Your task to perform on an android device: Go to Yahoo.com Image 0: 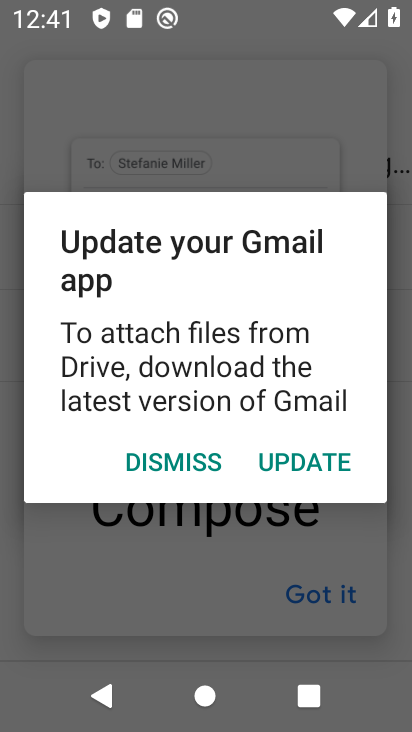
Step 0: press home button
Your task to perform on an android device: Go to Yahoo.com Image 1: 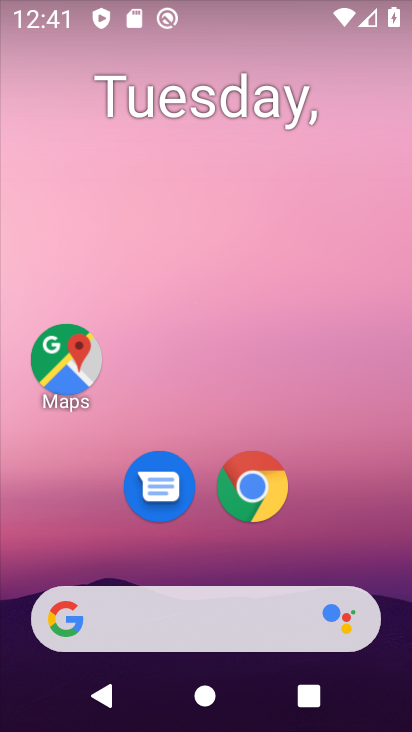
Step 1: drag from (371, 551) to (332, 172)
Your task to perform on an android device: Go to Yahoo.com Image 2: 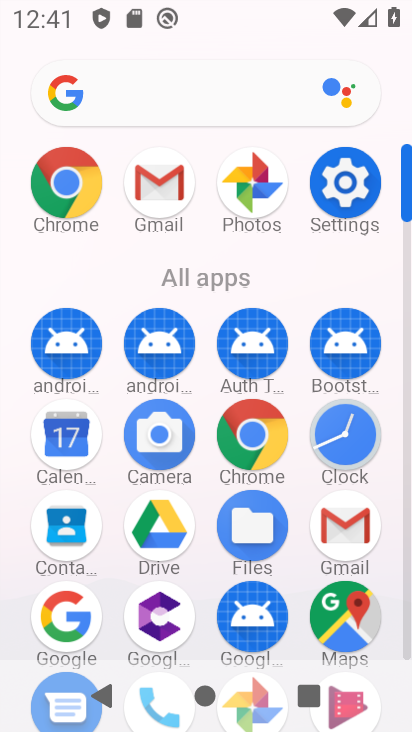
Step 2: click (71, 194)
Your task to perform on an android device: Go to Yahoo.com Image 3: 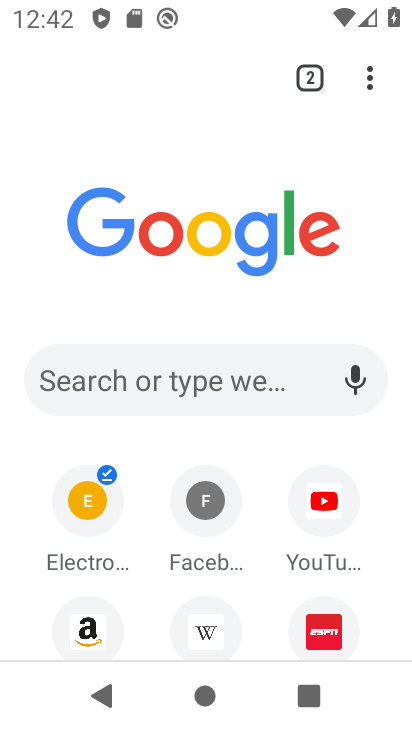
Step 3: click (188, 368)
Your task to perform on an android device: Go to Yahoo.com Image 4: 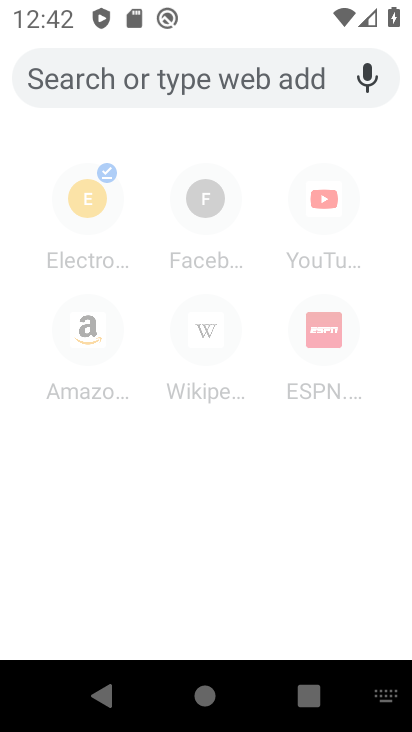
Step 4: type "yahoo.com"
Your task to perform on an android device: Go to Yahoo.com Image 5: 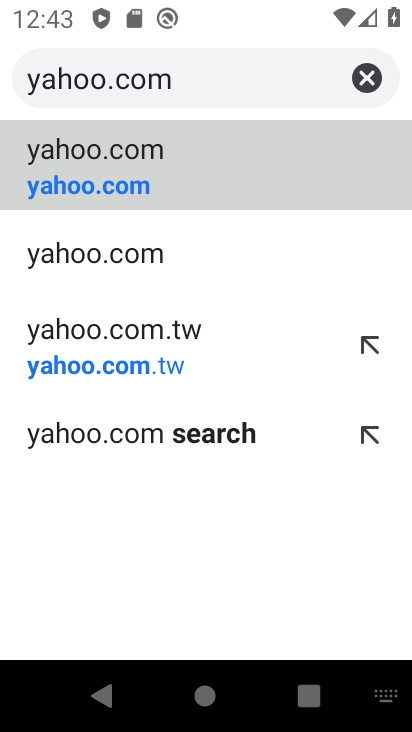
Step 5: click (132, 190)
Your task to perform on an android device: Go to Yahoo.com Image 6: 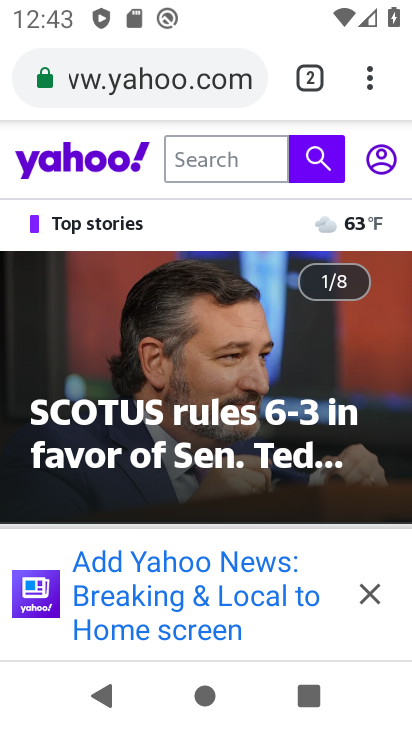
Step 6: task complete